Your task to perform on an android device: toggle priority inbox in the gmail app Image 0: 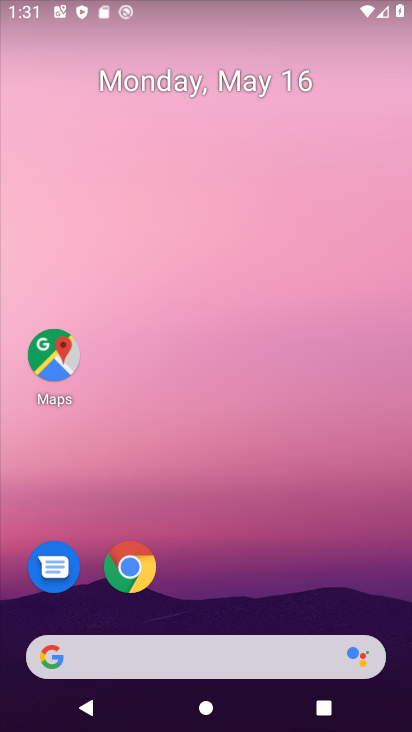
Step 0: drag from (244, 607) to (268, 119)
Your task to perform on an android device: toggle priority inbox in the gmail app Image 1: 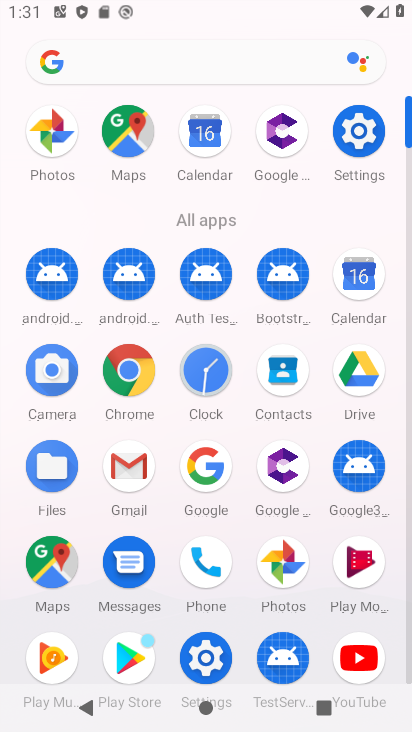
Step 1: click (129, 466)
Your task to perform on an android device: toggle priority inbox in the gmail app Image 2: 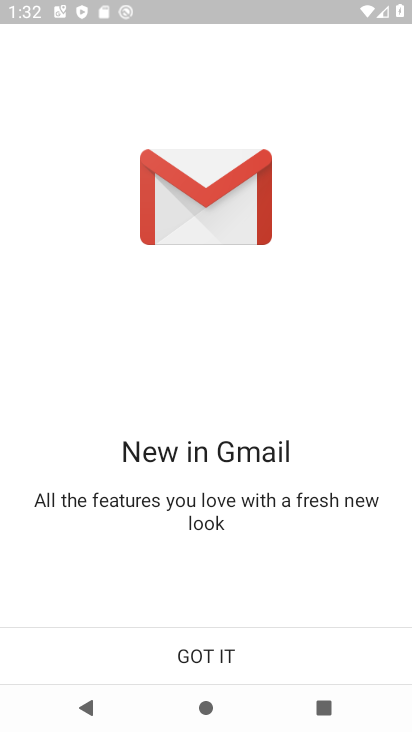
Step 2: click (214, 649)
Your task to perform on an android device: toggle priority inbox in the gmail app Image 3: 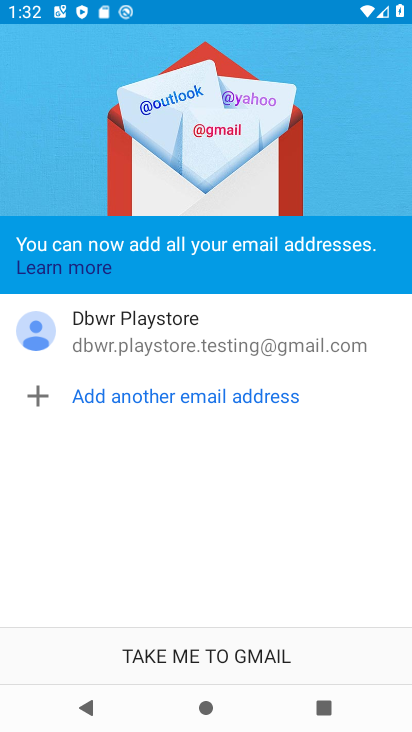
Step 3: click (214, 649)
Your task to perform on an android device: toggle priority inbox in the gmail app Image 4: 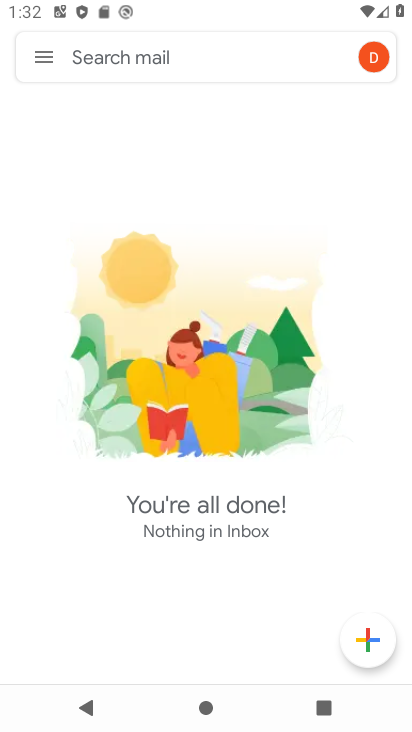
Step 4: click (34, 67)
Your task to perform on an android device: toggle priority inbox in the gmail app Image 5: 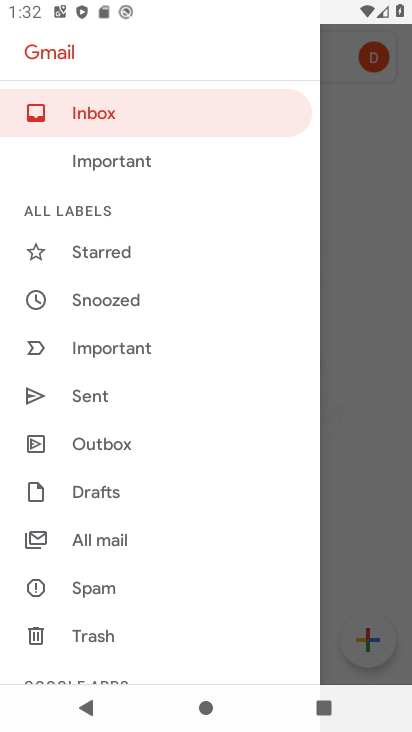
Step 5: drag from (231, 664) to (199, 197)
Your task to perform on an android device: toggle priority inbox in the gmail app Image 6: 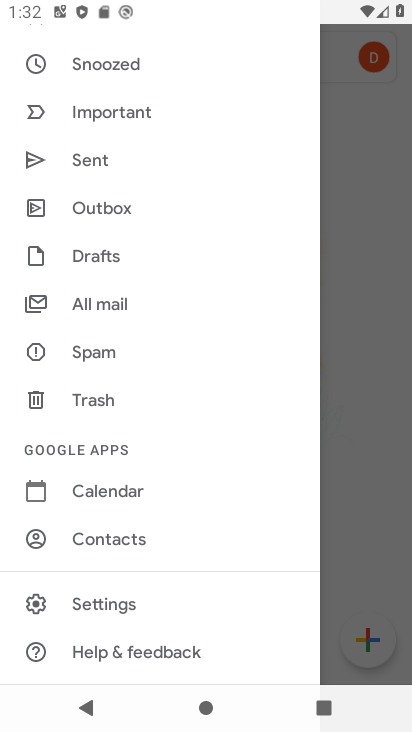
Step 6: click (179, 598)
Your task to perform on an android device: toggle priority inbox in the gmail app Image 7: 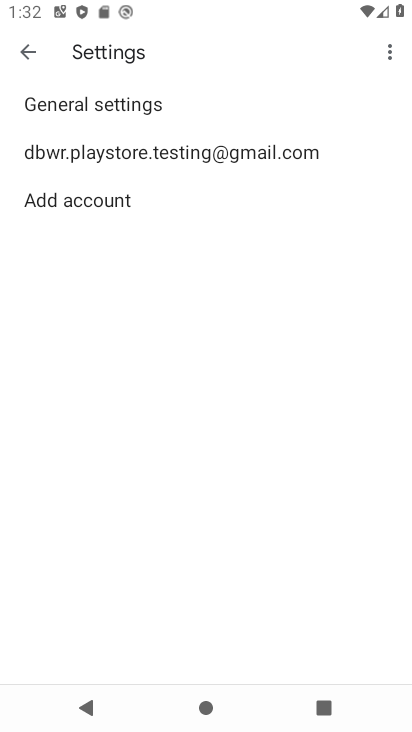
Step 7: click (194, 161)
Your task to perform on an android device: toggle priority inbox in the gmail app Image 8: 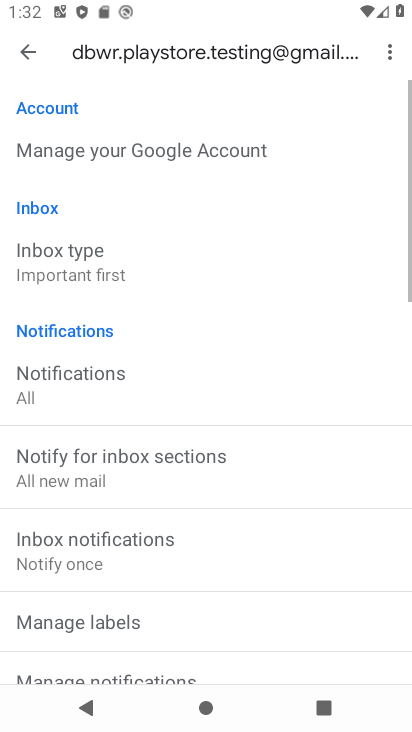
Step 8: click (177, 269)
Your task to perform on an android device: toggle priority inbox in the gmail app Image 9: 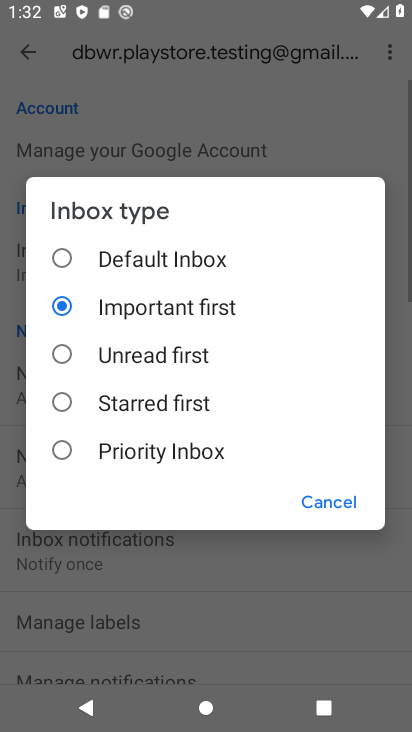
Step 9: click (158, 445)
Your task to perform on an android device: toggle priority inbox in the gmail app Image 10: 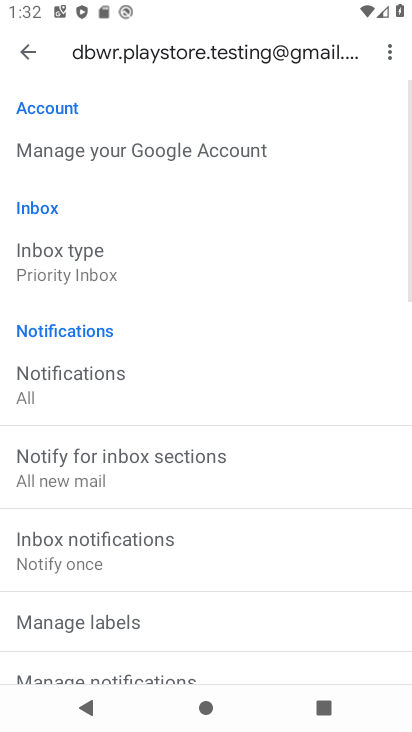
Step 10: task complete